Your task to perform on an android device: turn off translation in the chrome app Image 0: 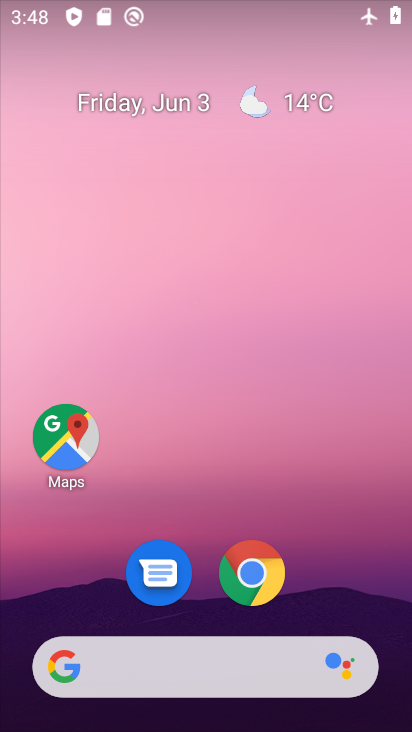
Step 0: drag from (303, 470) to (319, 355)
Your task to perform on an android device: turn off translation in the chrome app Image 1: 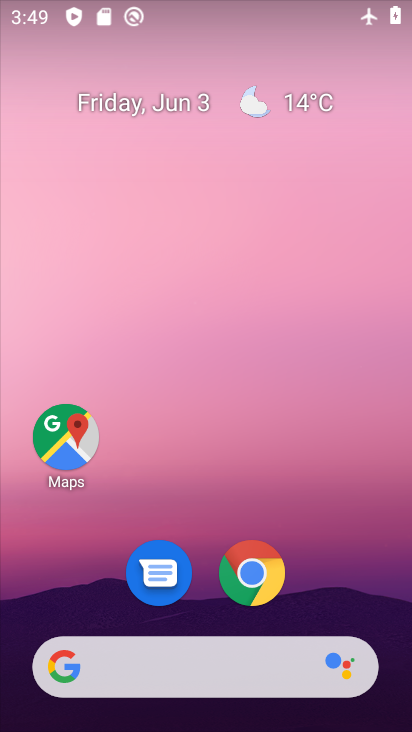
Step 1: click (276, 593)
Your task to perform on an android device: turn off translation in the chrome app Image 2: 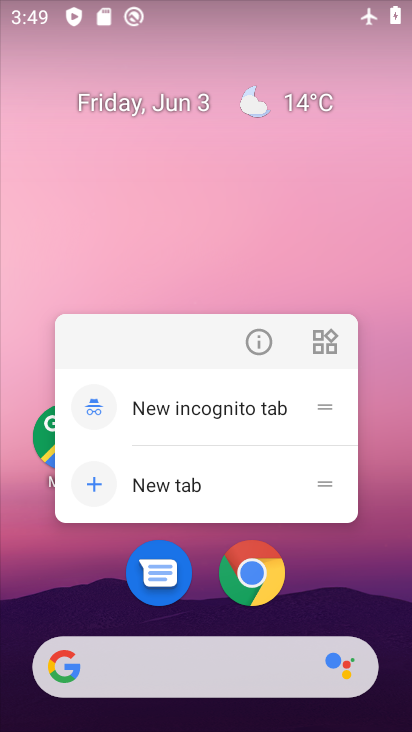
Step 2: click (273, 590)
Your task to perform on an android device: turn off translation in the chrome app Image 3: 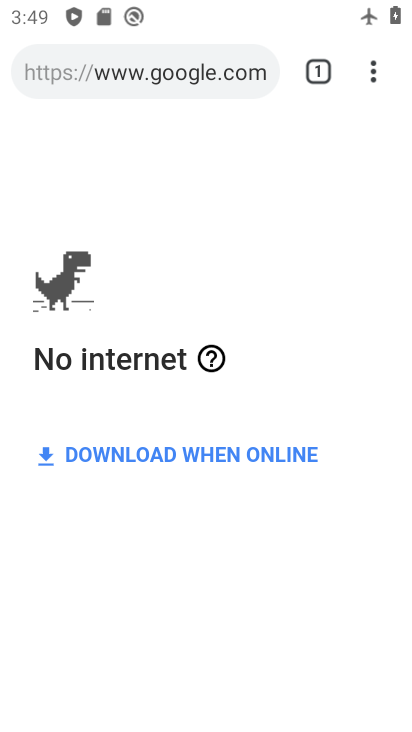
Step 3: click (368, 68)
Your task to perform on an android device: turn off translation in the chrome app Image 4: 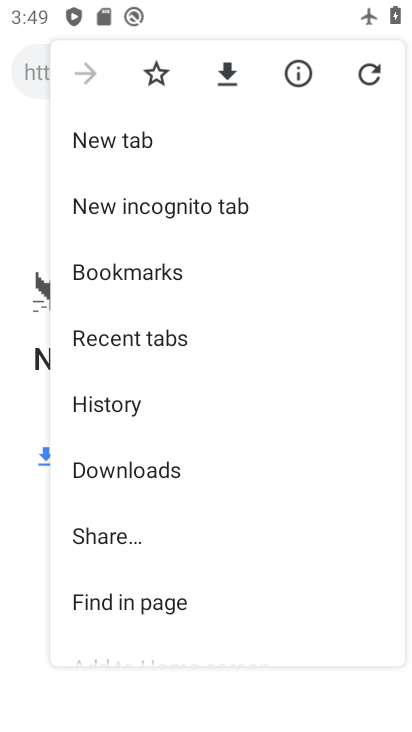
Step 4: task complete